Your task to perform on an android device: Check the news Image 0: 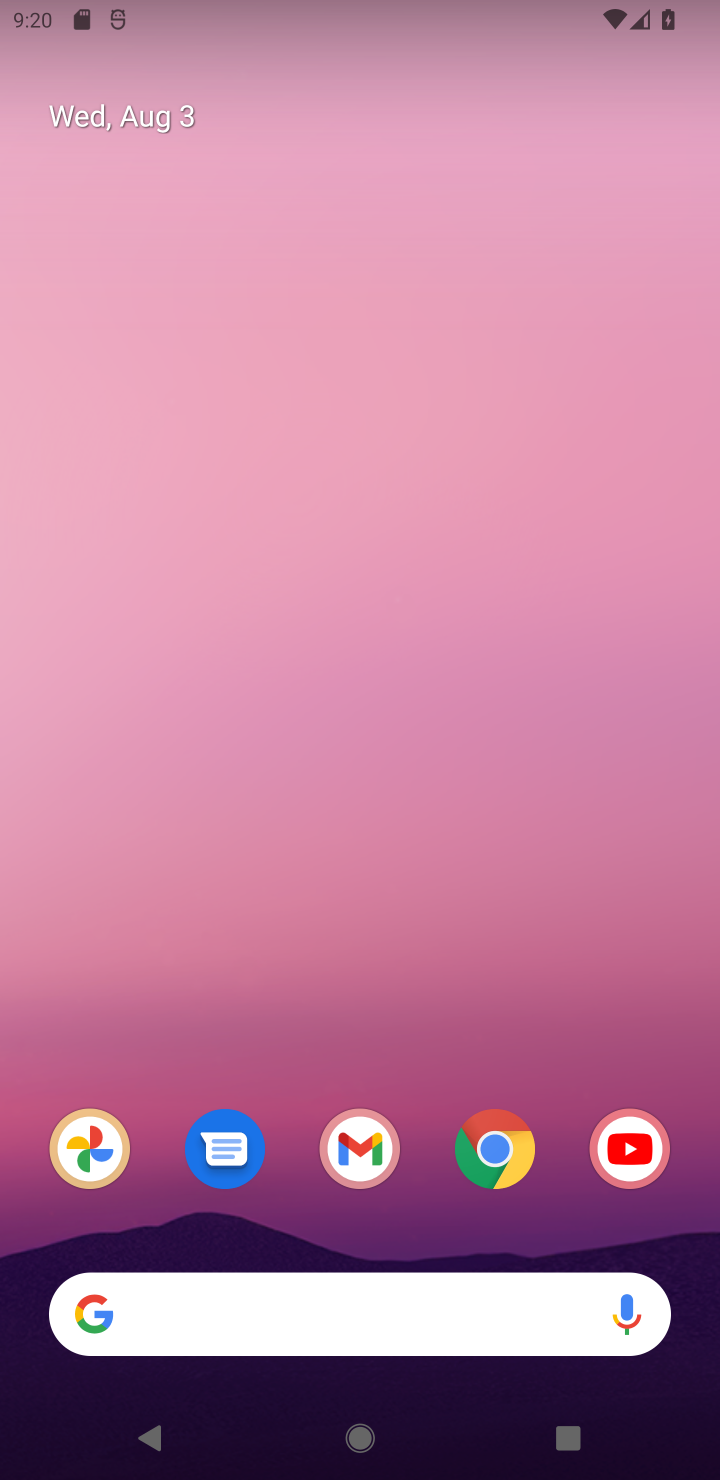
Step 0: click (340, 145)
Your task to perform on an android device: Check the news Image 1: 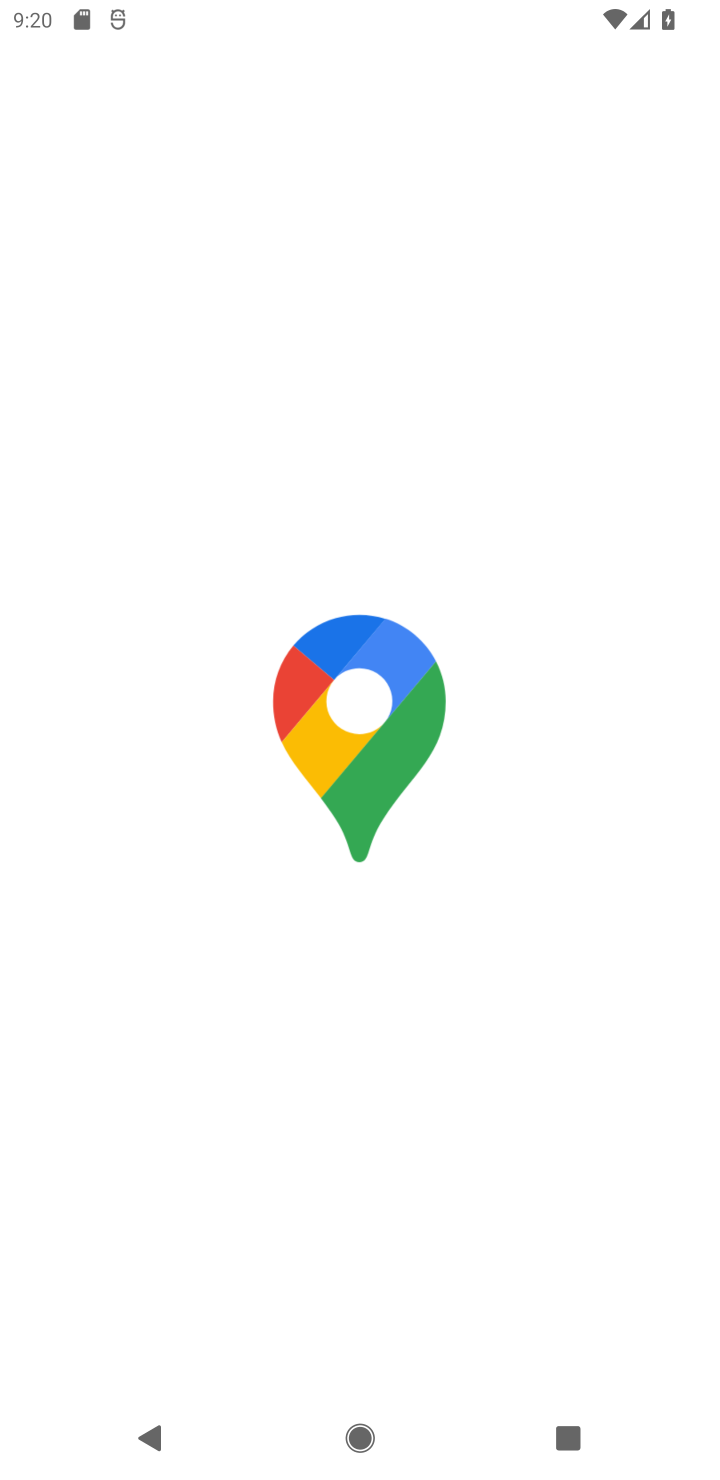
Step 1: press home button
Your task to perform on an android device: Check the news Image 2: 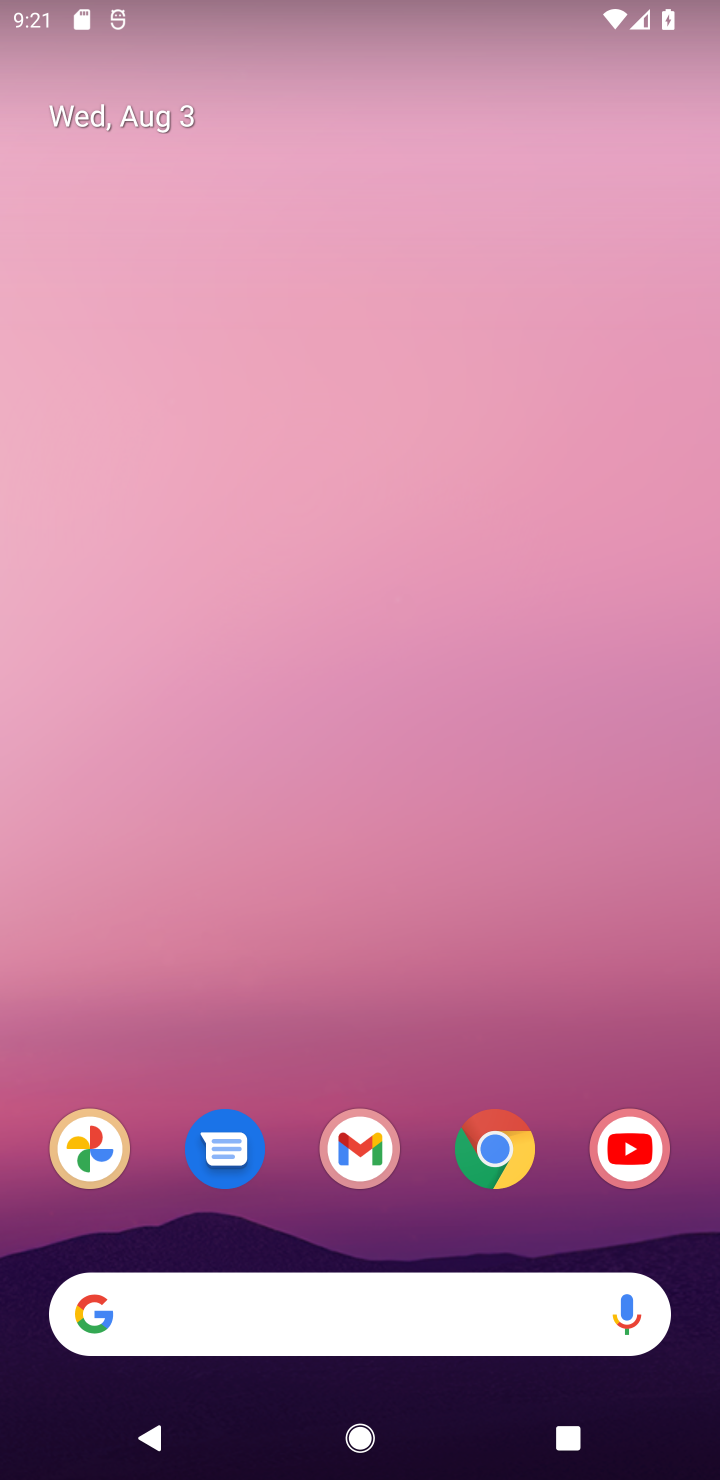
Step 2: click (499, 1172)
Your task to perform on an android device: Check the news Image 3: 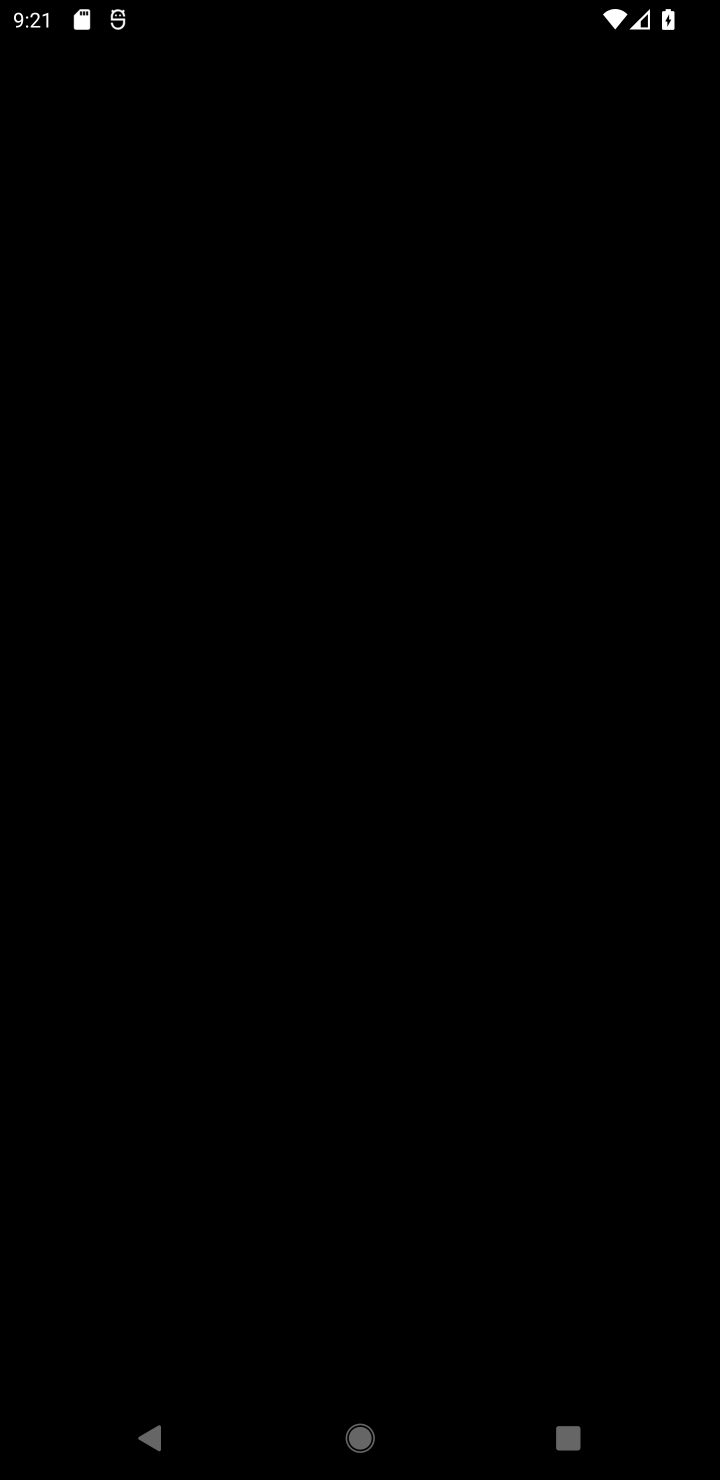
Step 3: task complete